Your task to perform on an android device: toggle notification dots Image 0: 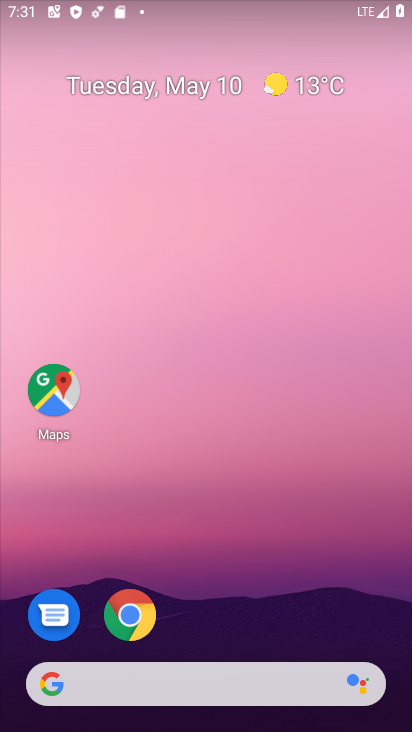
Step 0: drag from (285, 600) to (248, 68)
Your task to perform on an android device: toggle notification dots Image 1: 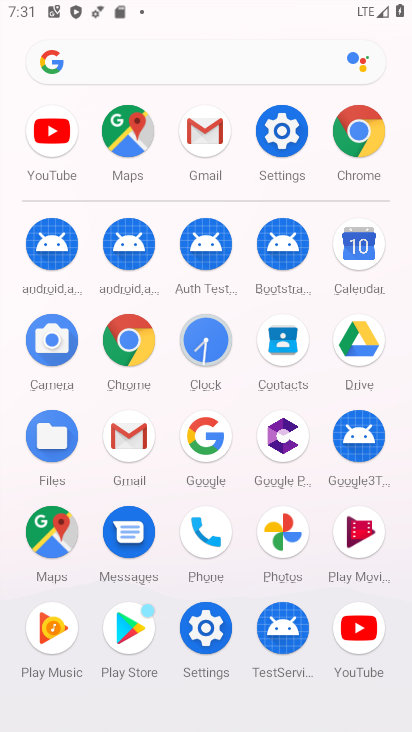
Step 1: click (293, 142)
Your task to perform on an android device: toggle notification dots Image 2: 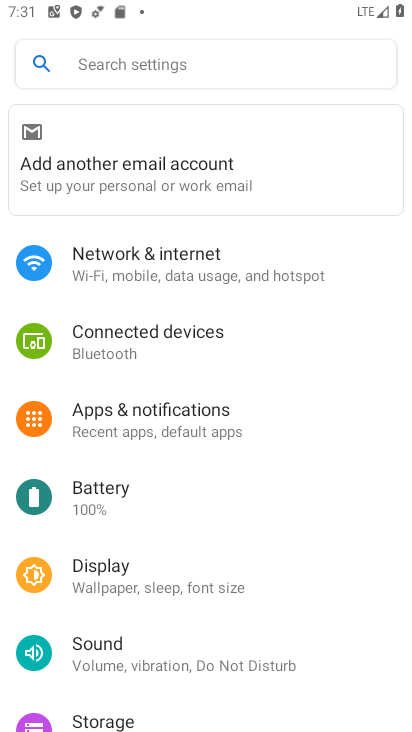
Step 2: click (286, 135)
Your task to perform on an android device: toggle notification dots Image 3: 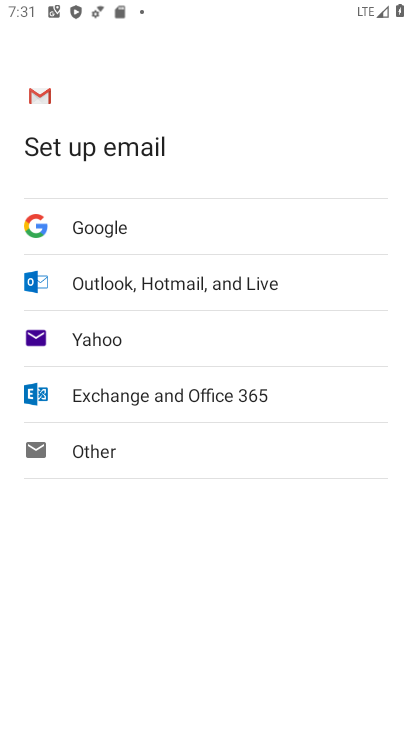
Step 3: press home button
Your task to perform on an android device: toggle notification dots Image 4: 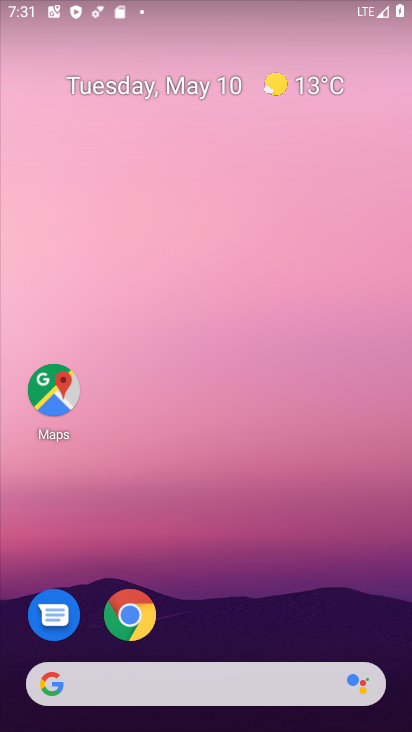
Step 4: drag from (284, 638) to (231, 8)
Your task to perform on an android device: toggle notification dots Image 5: 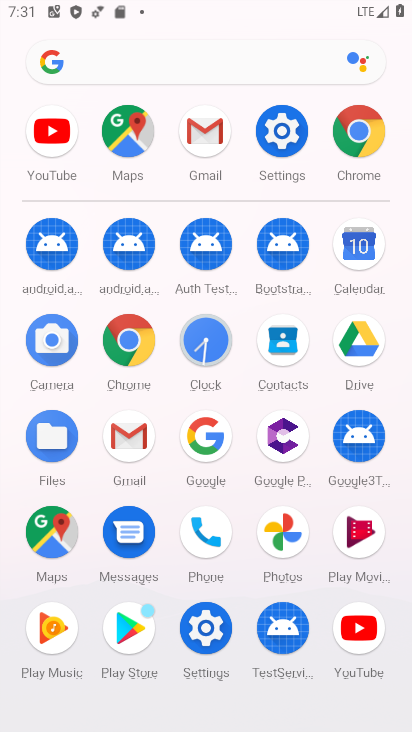
Step 5: click (279, 120)
Your task to perform on an android device: toggle notification dots Image 6: 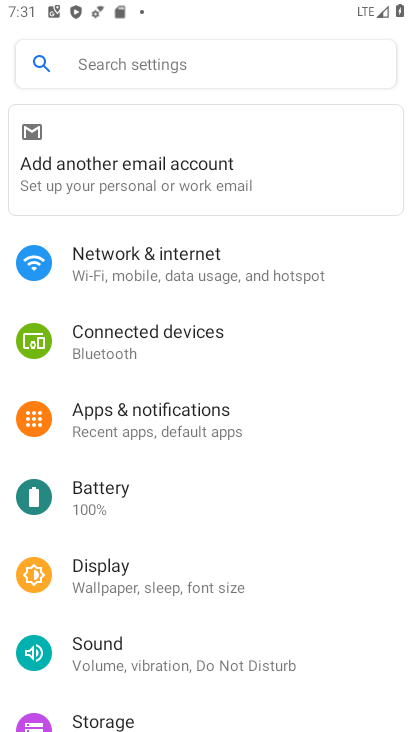
Step 6: click (175, 402)
Your task to perform on an android device: toggle notification dots Image 7: 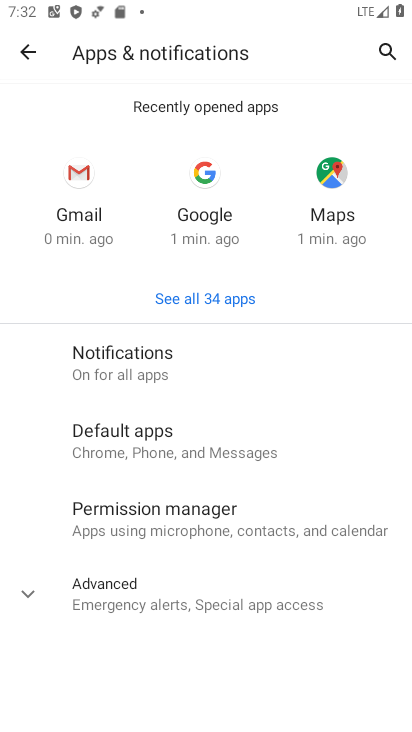
Step 7: click (141, 379)
Your task to perform on an android device: toggle notification dots Image 8: 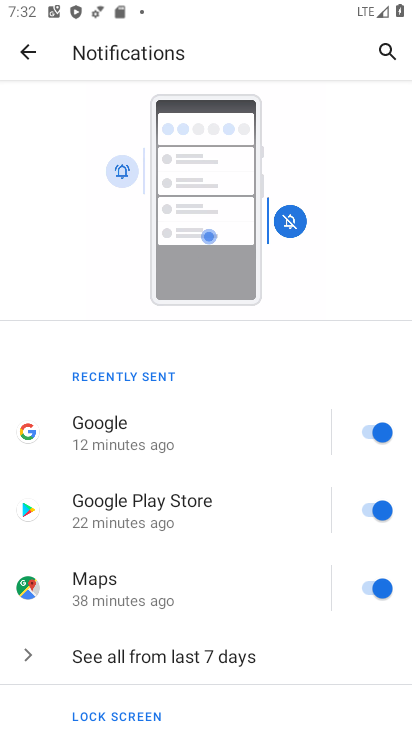
Step 8: drag from (229, 635) to (183, 238)
Your task to perform on an android device: toggle notification dots Image 9: 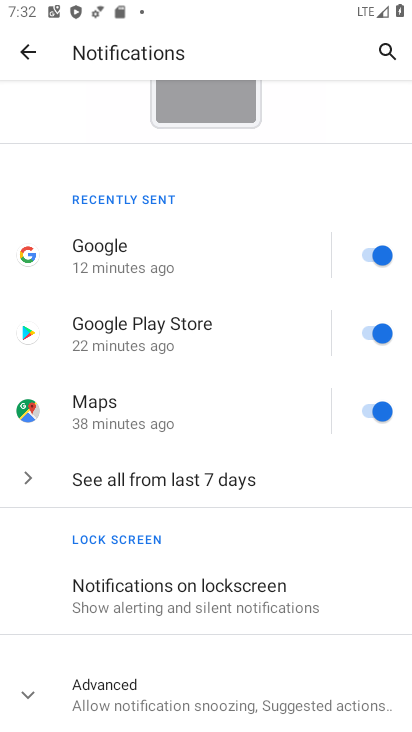
Step 9: drag from (246, 604) to (171, 254)
Your task to perform on an android device: toggle notification dots Image 10: 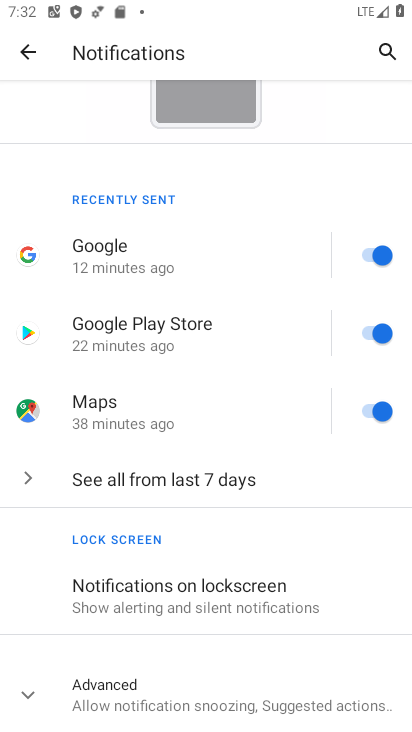
Step 10: click (196, 681)
Your task to perform on an android device: toggle notification dots Image 11: 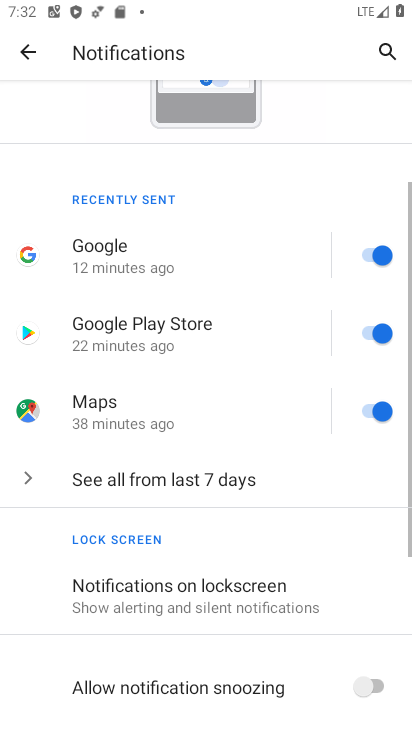
Step 11: drag from (188, 644) to (147, 290)
Your task to perform on an android device: toggle notification dots Image 12: 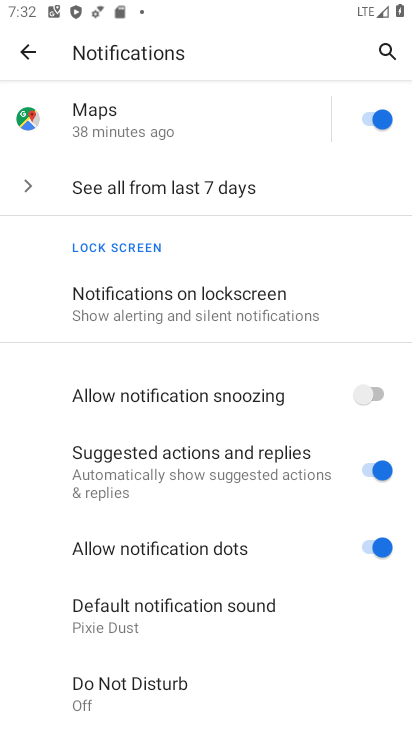
Step 12: click (369, 549)
Your task to perform on an android device: toggle notification dots Image 13: 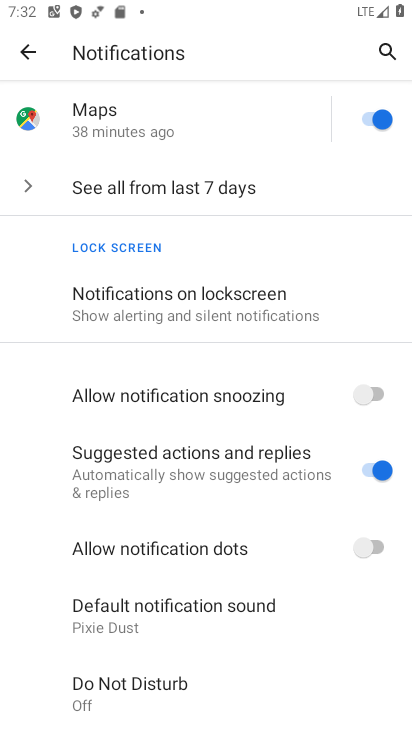
Step 13: task complete